Your task to perform on an android device: toggle location history Image 0: 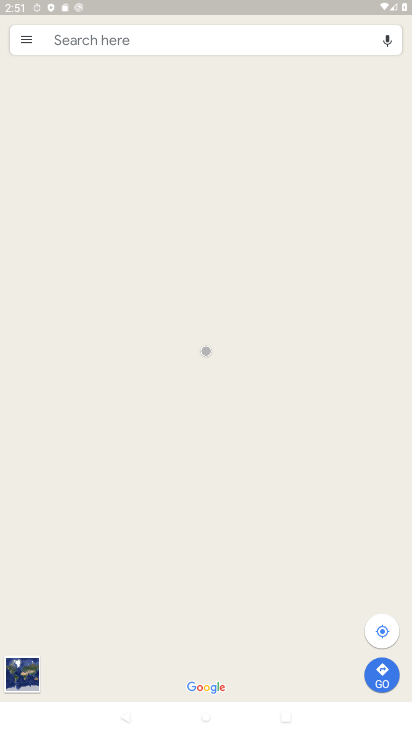
Step 0: press home button
Your task to perform on an android device: toggle location history Image 1: 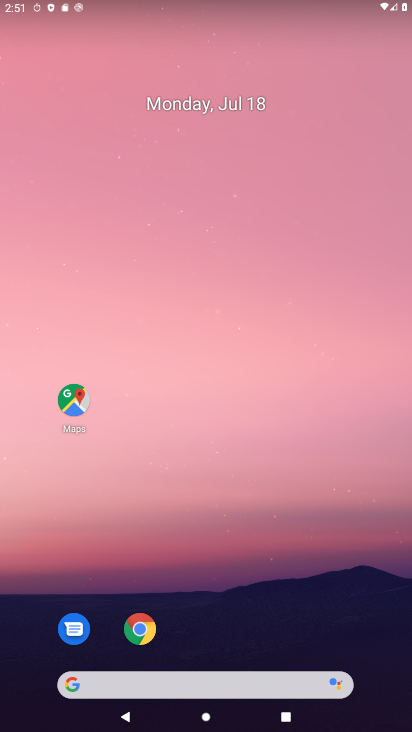
Step 1: drag from (242, 637) to (250, 168)
Your task to perform on an android device: toggle location history Image 2: 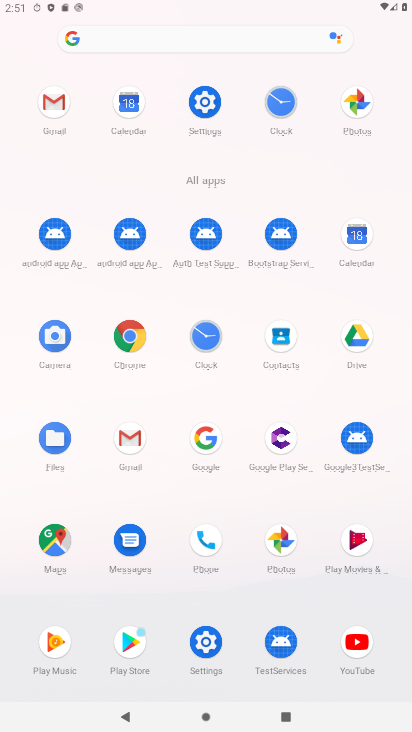
Step 2: click (207, 637)
Your task to perform on an android device: toggle location history Image 3: 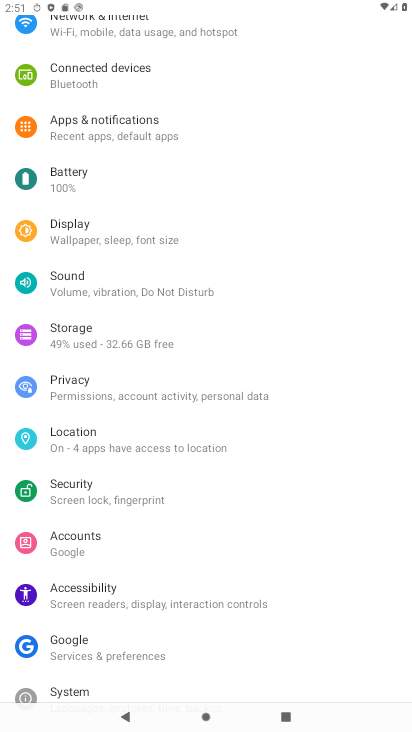
Step 3: click (113, 450)
Your task to perform on an android device: toggle location history Image 4: 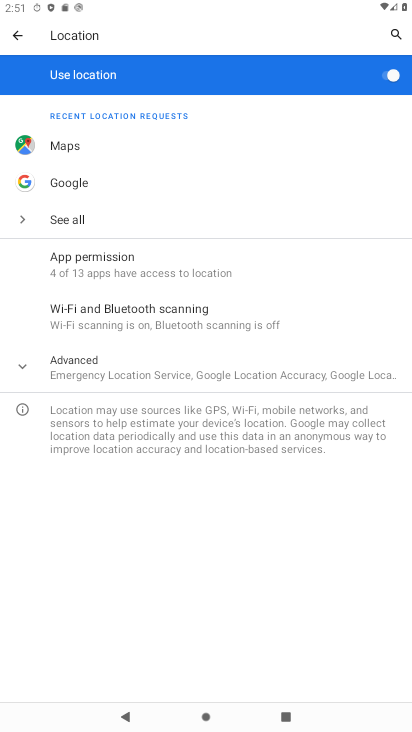
Step 4: click (139, 374)
Your task to perform on an android device: toggle location history Image 5: 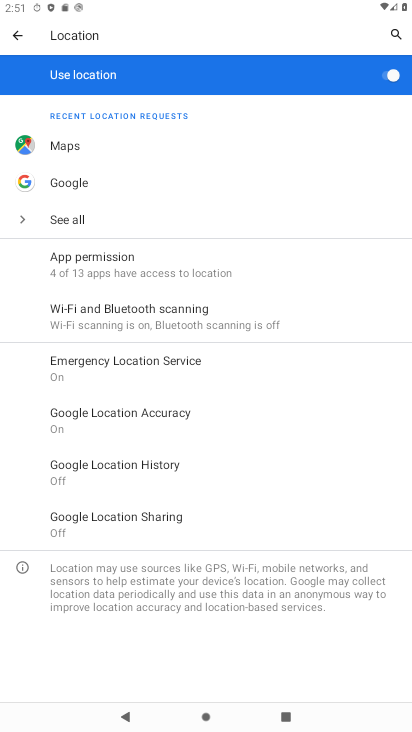
Step 5: click (134, 468)
Your task to perform on an android device: toggle location history Image 6: 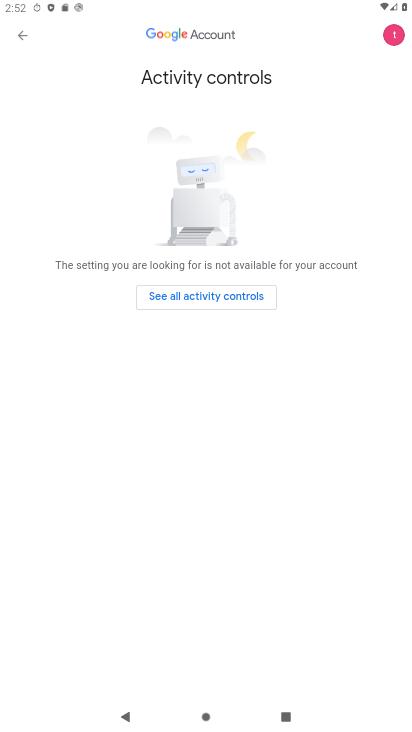
Step 6: click (213, 300)
Your task to perform on an android device: toggle location history Image 7: 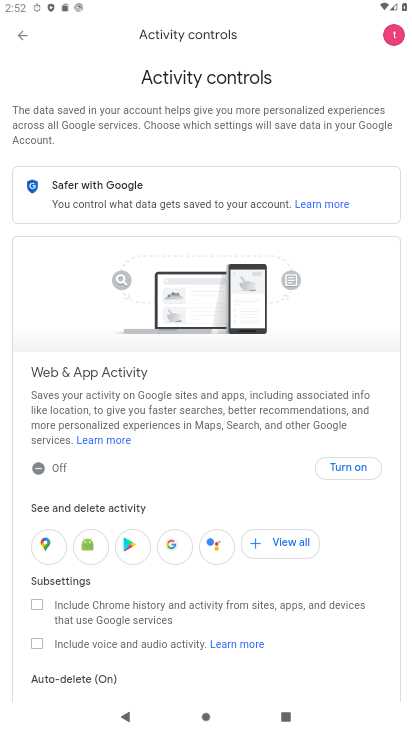
Step 7: click (354, 461)
Your task to perform on an android device: toggle location history Image 8: 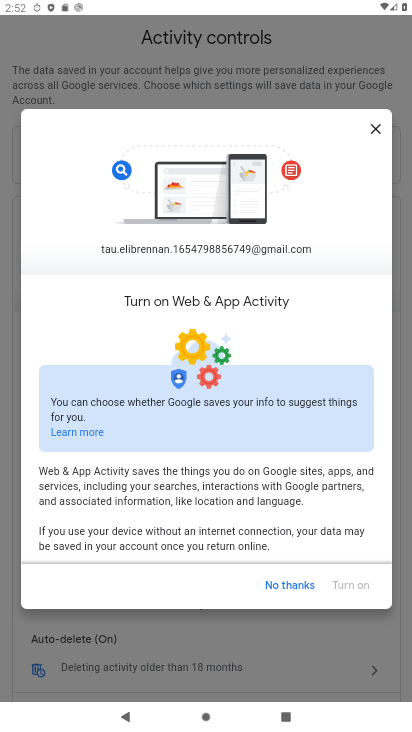
Step 8: drag from (242, 465) to (227, 178)
Your task to perform on an android device: toggle location history Image 9: 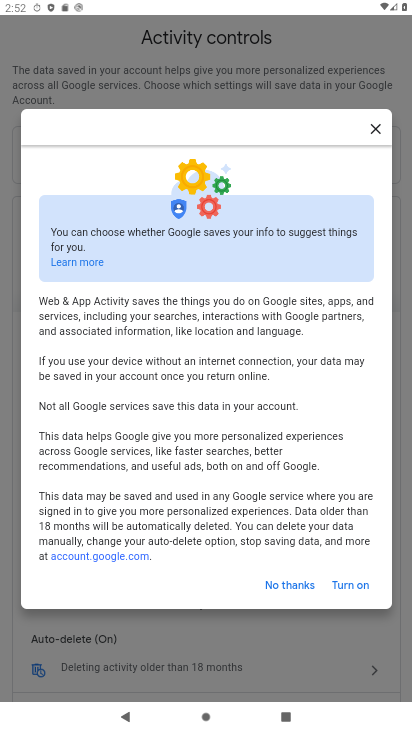
Step 9: click (356, 586)
Your task to perform on an android device: toggle location history Image 10: 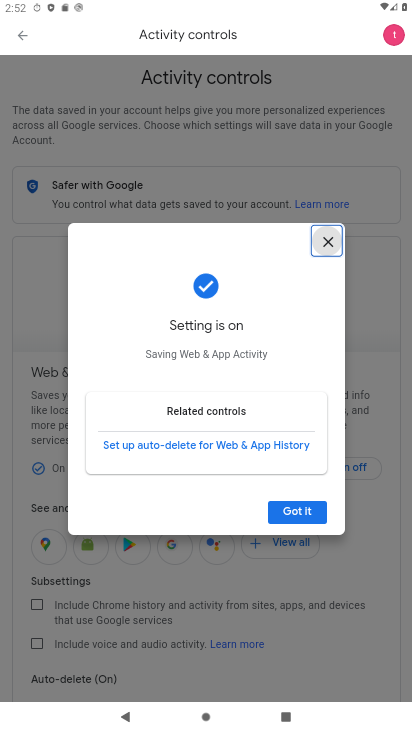
Step 10: click (308, 504)
Your task to perform on an android device: toggle location history Image 11: 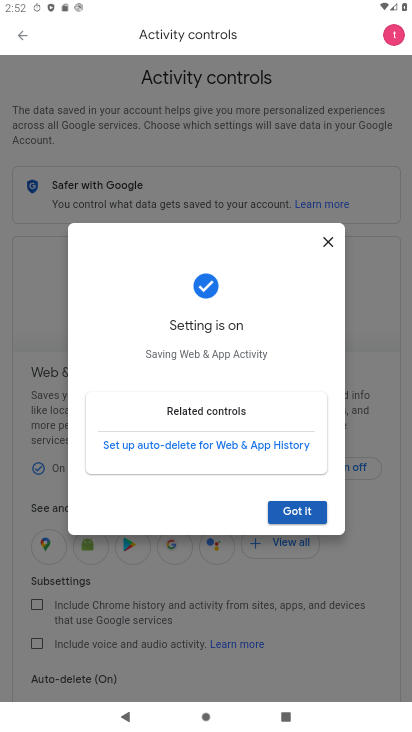
Step 11: click (287, 516)
Your task to perform on an android device: toggle location history Image 12: 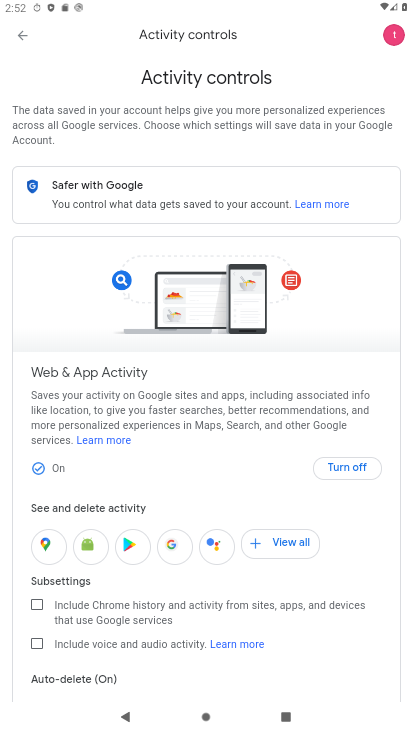
Step 12: task complete